Your task to perform on an android device: Open Youtube and go to "Your channel" Image 0: 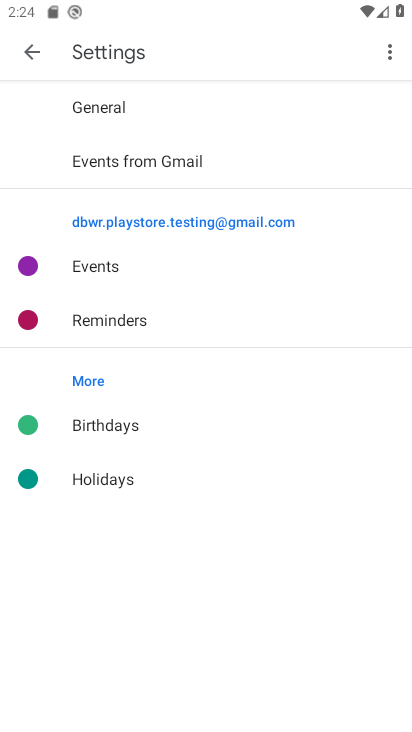
Step 0: press home button
Your task to perform on an android device: Open Youtube and go to "Your channel" Image 1: 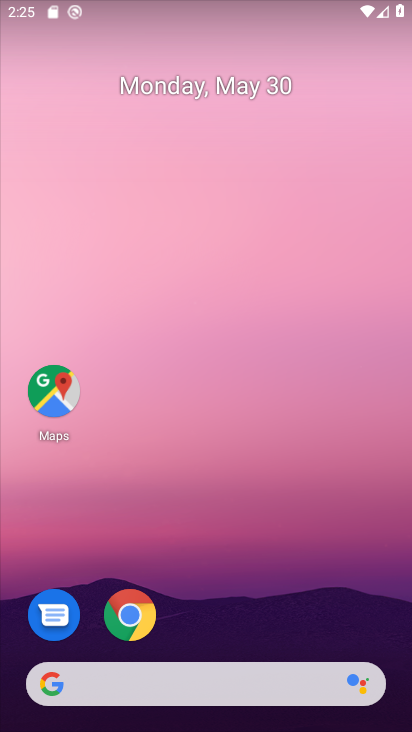
Step 1: drag from (202, 536) to (243, 0)
Your task to perform on an android device: Open Youtube and go to "Your channel" Image 2: 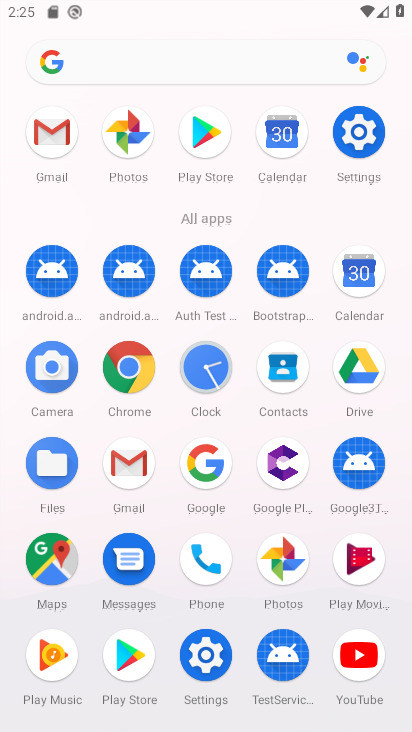
Step 2: drag from (290, 526) to (321, 96)
Your task to perform on an android device: Open Youtube and go to "Your channel" Image 3: 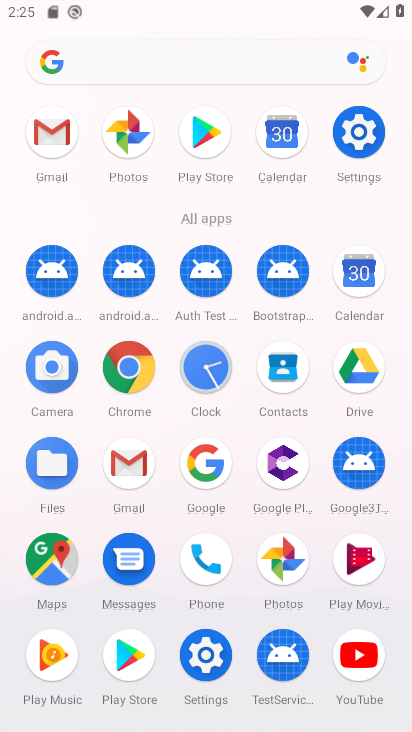
Step 3: click (367, 638)
Your task to perform on an android device: Open Youtube and go to "Your channel" Image 4: 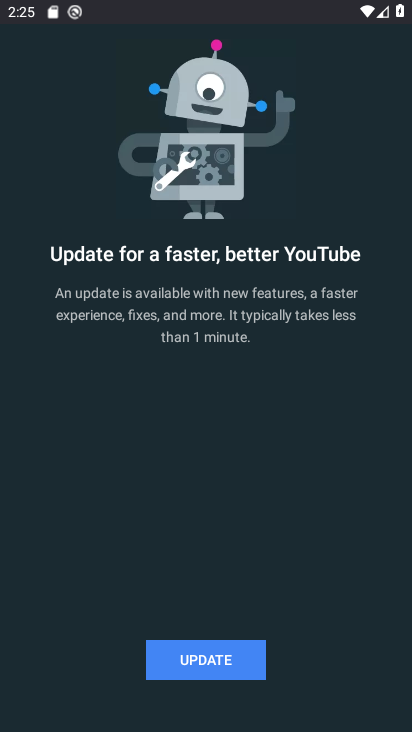
Step 4: click (241, 662)
Your task to perform on an android device: Open Youtube and go to "Your channel" Image 5: 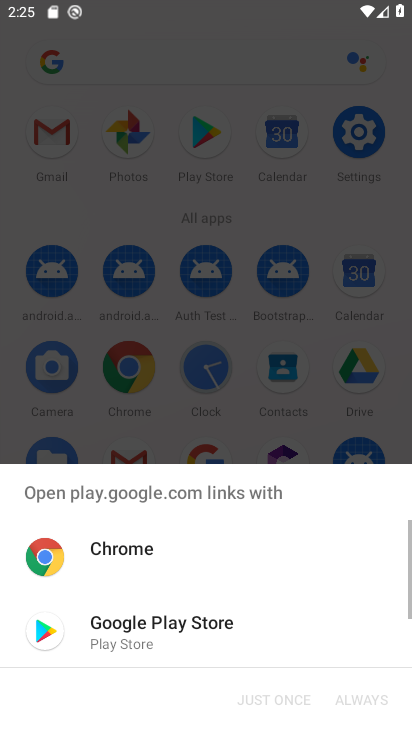
Step 5: click (187, 634)
Your task to perform on an android device: Open Youtube and go to "Your channel" Image 6: 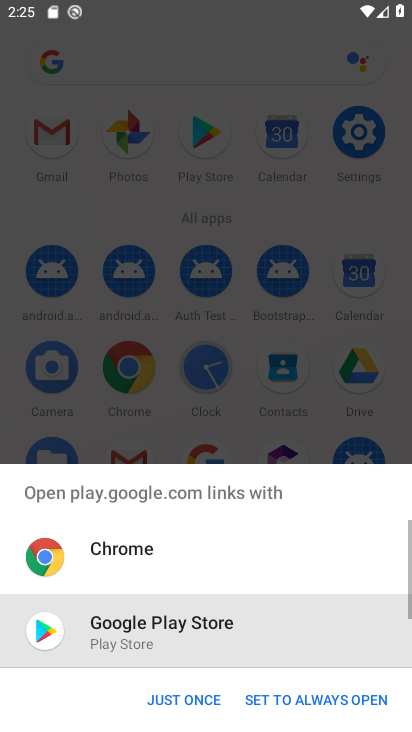
Step 6: click (208, 672)
Your task to perform on an android device: Open Youtube and go to "Your channel" Image 7: 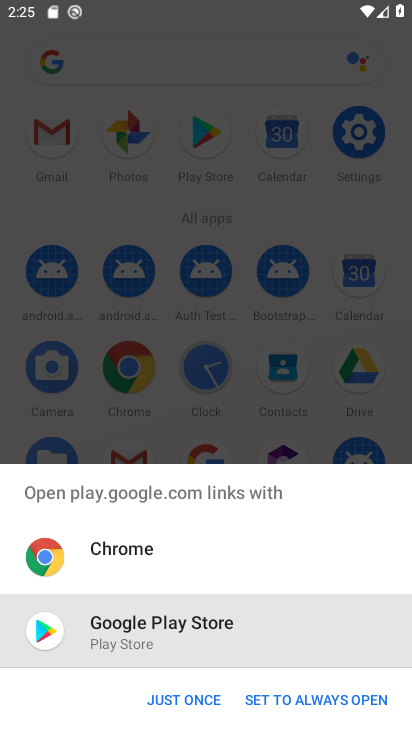
Step 7: click (207, 689)
Your task to perform on an android device: Open Youtube and go to "Your channel" Image 8: 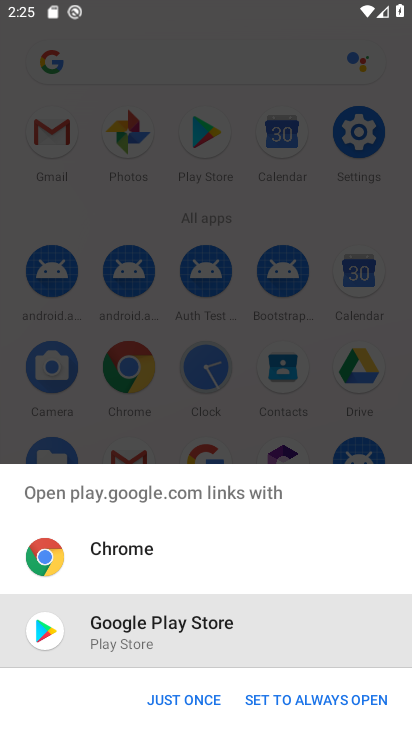
Step 8: click (201, 695)
Your task to perform on an android device: Open Youtube and go to "Your channel" Image 9: 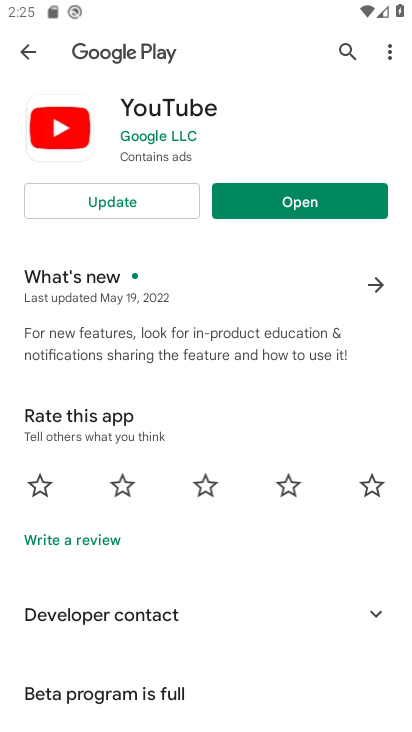
Step 9: click (181, 201)
Your task to perform on an android device: Open Youtube and go to "Your channel" Image 10: 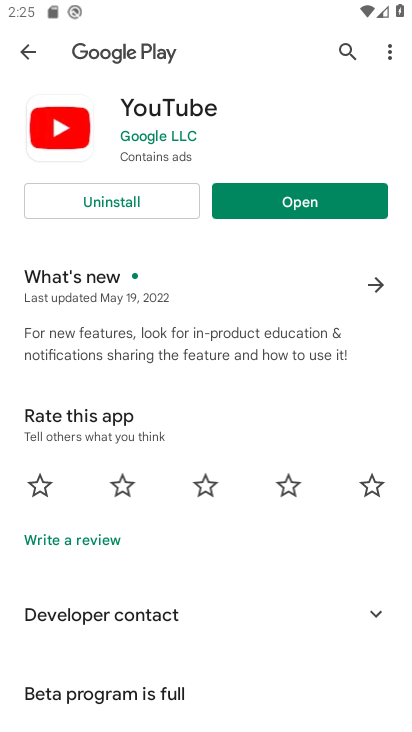
Step 10: click (384, 204)
Your task to perform on an android device: Open Youtube and go to "Your channel" Image 11: 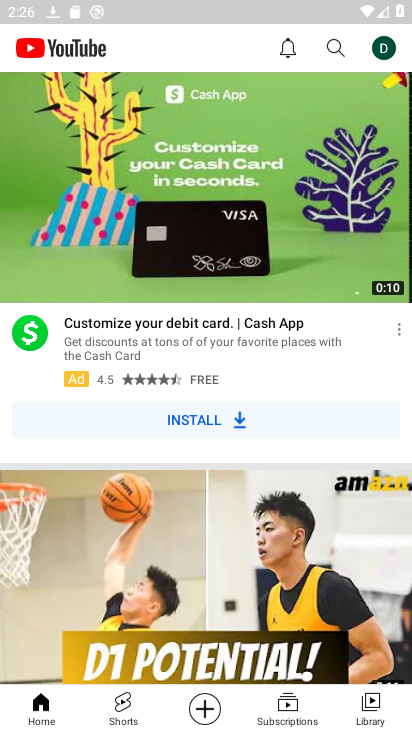
Step 11: click (381, 42)
Your task to perform on an android device: Open Youtube and go to "Your channel" Image 12: 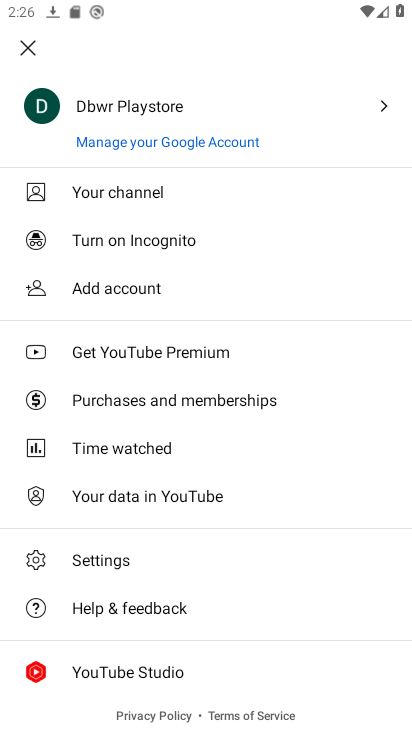
Step 12: click (226, 194)
Your task to perform on an android device: Open Youtube and go to "Your channel" Image 13: 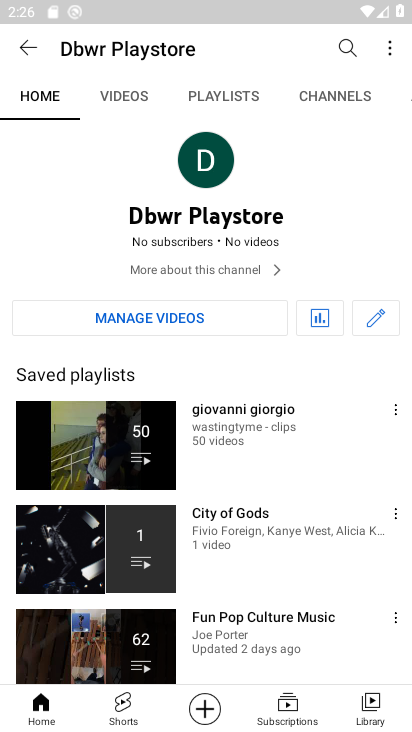
Step 13: task complete